Your task to perform on an android device: turn pop-ups on in chrome Image 0: 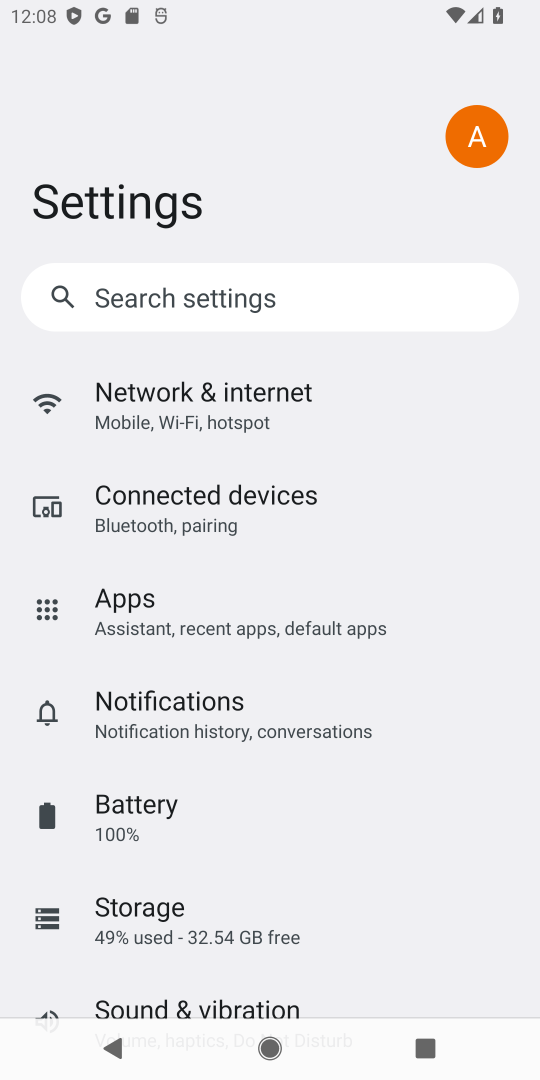
Step 0: press home button
Your task to perform on an android device: turn pop-ups on in chrome Image 1: 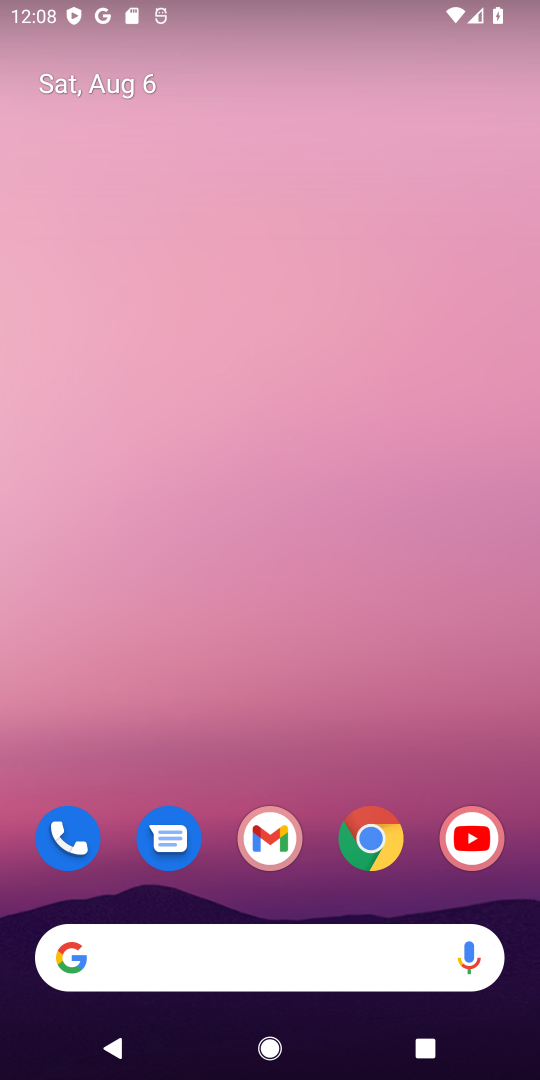
Step 1: click (376, 833)
Your task to perform on an android device: turn pop-ups on in chrome Image 2: 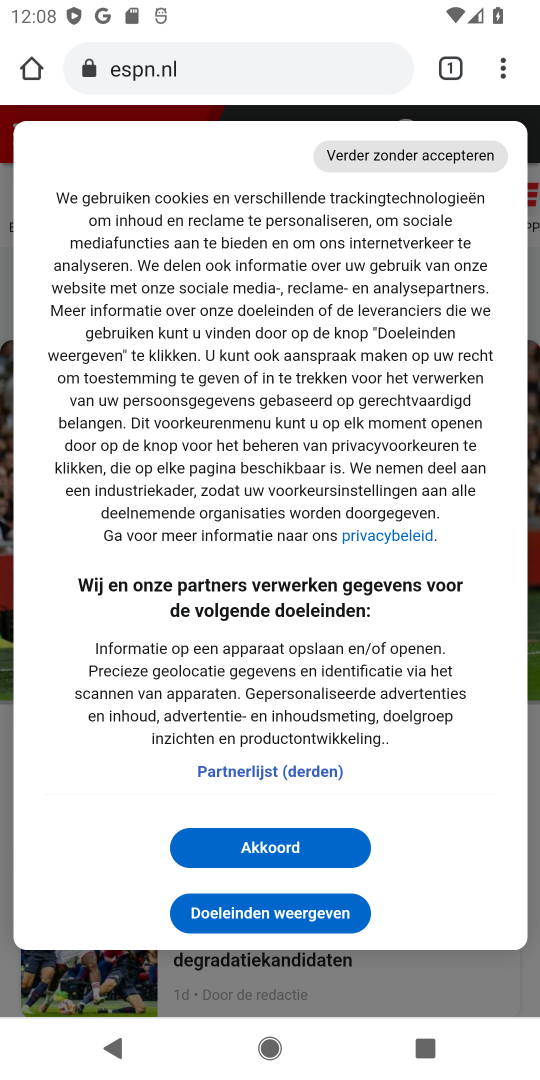
Step 2: click (506, 70)
Your task to perform on an android device: turn pop-ups on in chrome Image 3: 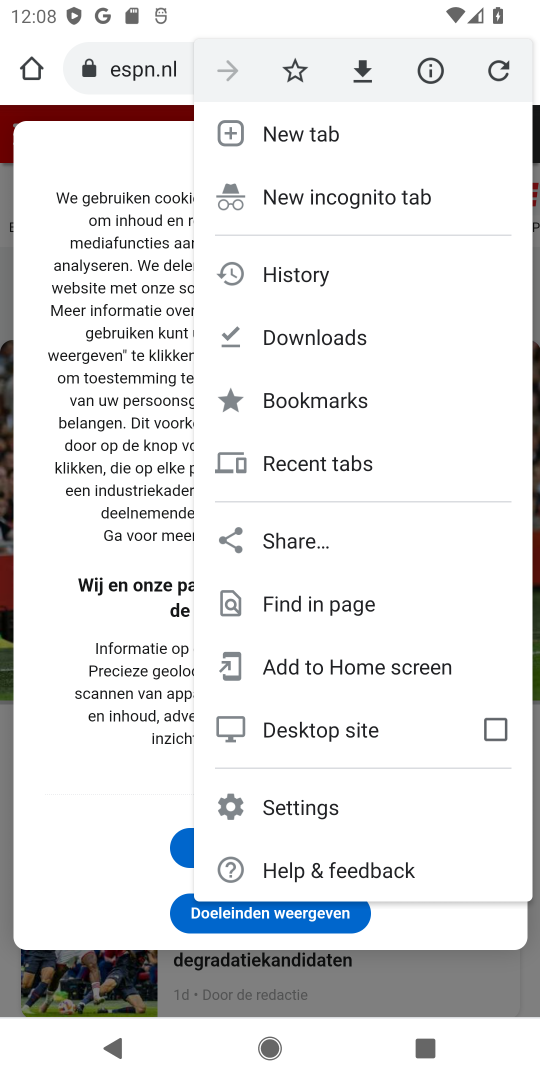
Step 3: click (344, 817)
Your task to perform on an android device: turn pop-ups on in chrome Image 4: 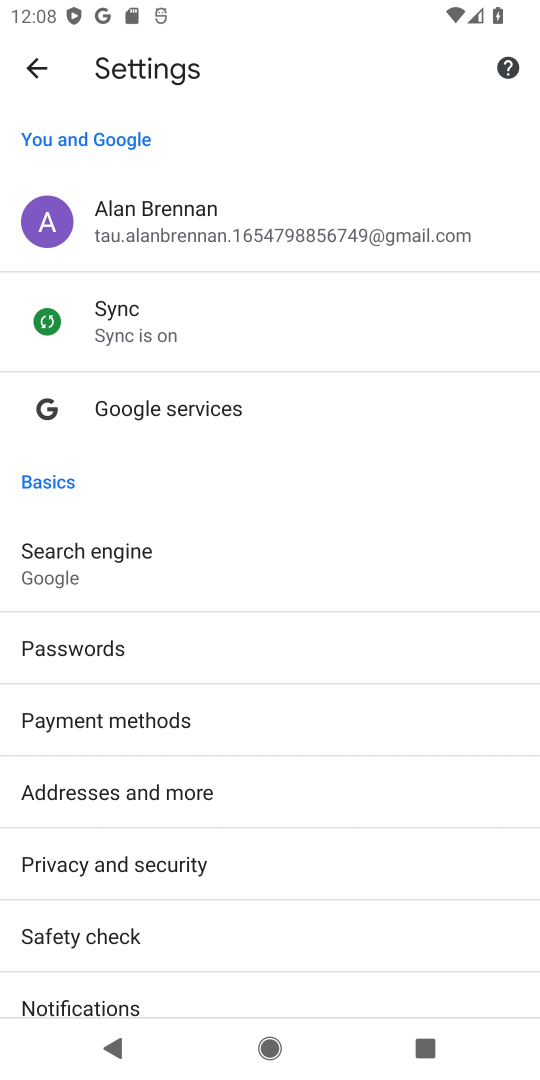
Step 4: drag from (131, 909) to (66, 363)
Your task to perform on an android device: turn pop-ups on in chrome Image 5: 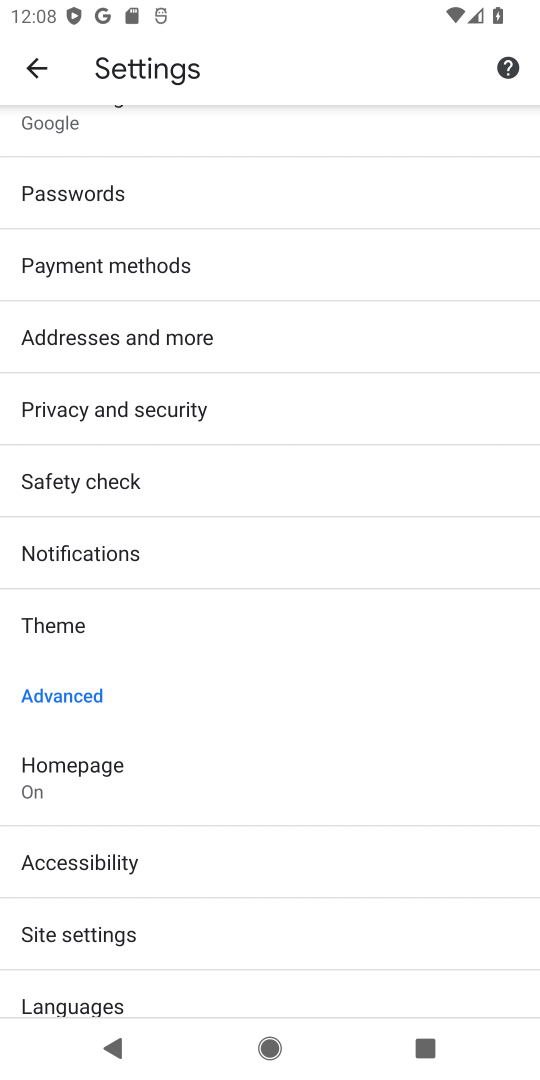
Step 5: click (136, 934)
Your task to perform on an android device: turn pop-ups on in chrome Image 6: 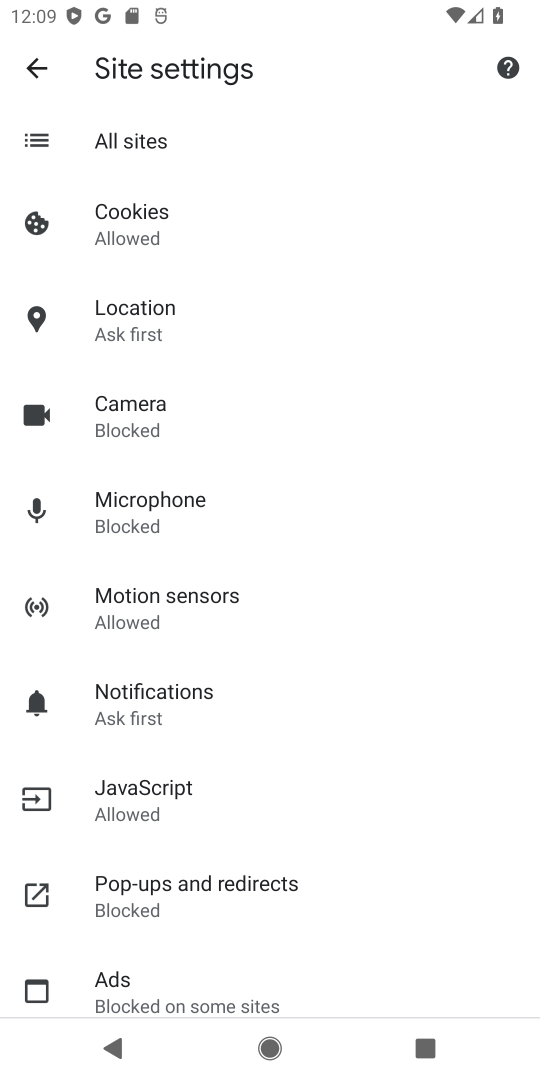
Step 6: click (212, 896)
Your task to perform on an android device: turn pop-ups on in chrome Image 7: 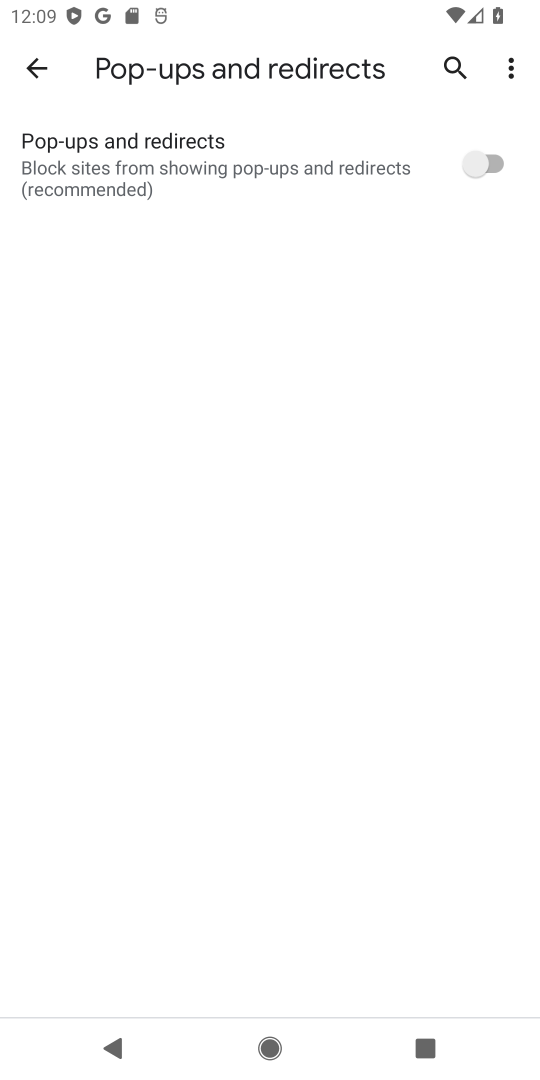
Step 7: click (490, 161)
Your task to perform on an android device: turn pop-ups on in chrome Image 8: 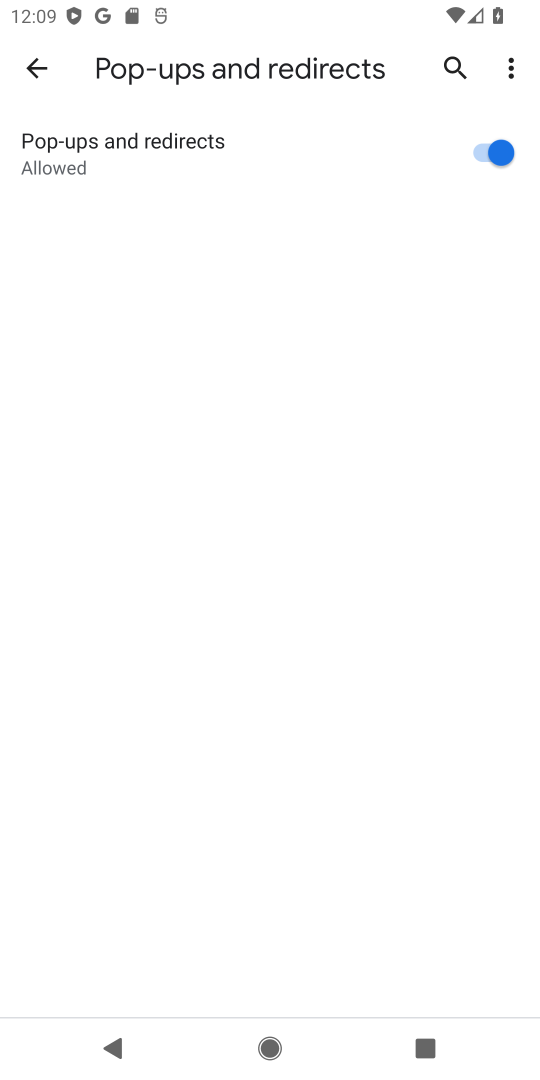
Step 8: task complete